Your task to perform on an android device: turn off javascript in the chrome app Image 0: 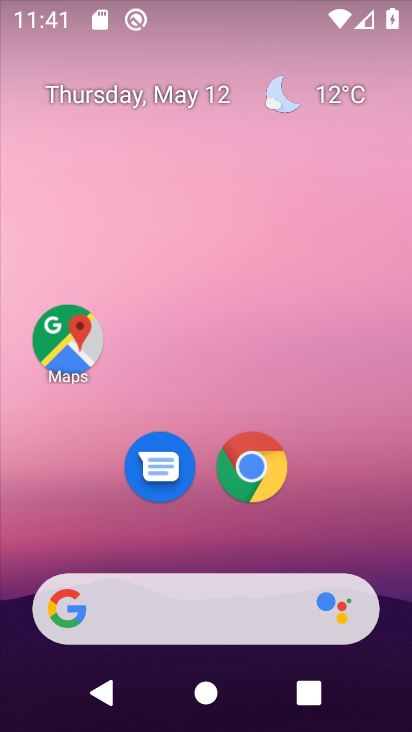
Step 0: click (265, 469)
Your task to perform on an android device: turn off javascript in the chrome app Image 1: 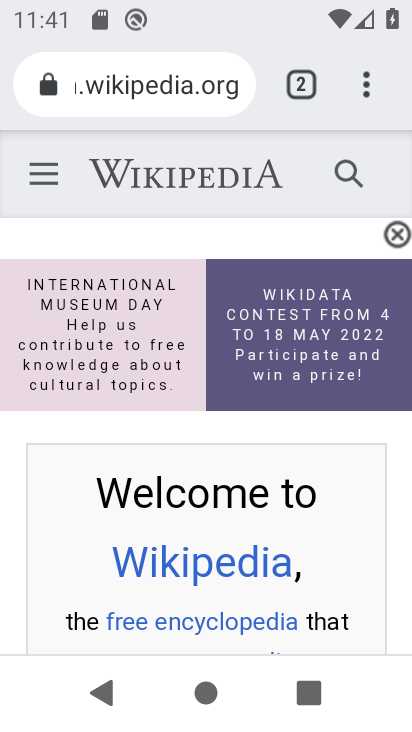
Step 1: click (374, 72)
Your task to perform on an android device: turn off javascript in the chrome app Image 2: 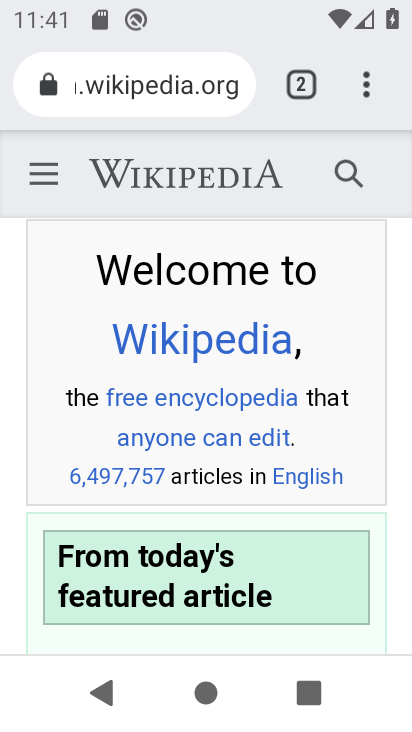
Step 2: click (357, 89)
Your task to perform on an android device: turn off javascript in the chrome app Image 3: 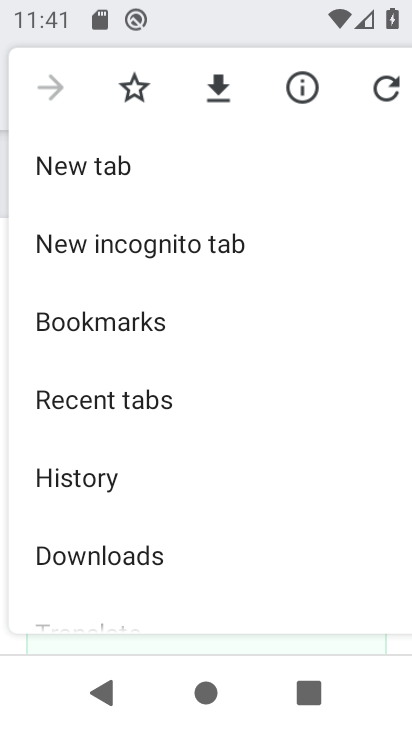
Step 3: drag from (155, 529) to (175, 38)
Your task to perform on an android device: turn off javascript in the chrome app Image 4: 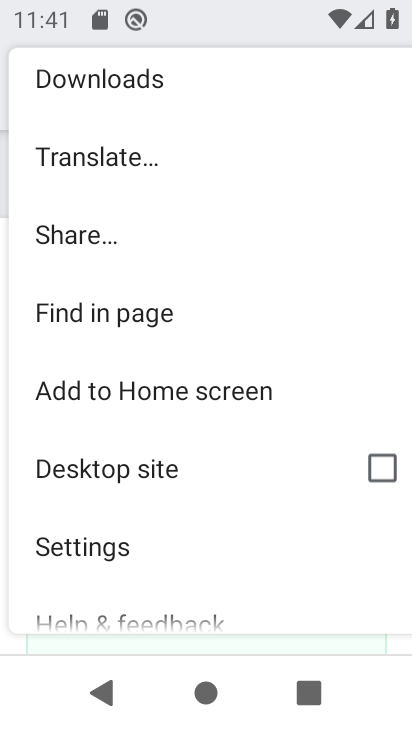
Step 4: click (124, 542)
Your task to perform on an android device: turn off javascript in the chrome app Image 5: 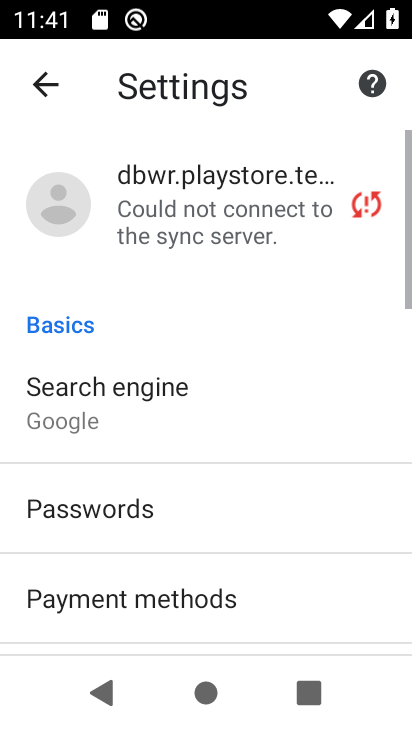
Step 5: drag from (204, 519) to (216, 35)
Your task to perform on an android device: turn off javascript in the chrome app Image 6: 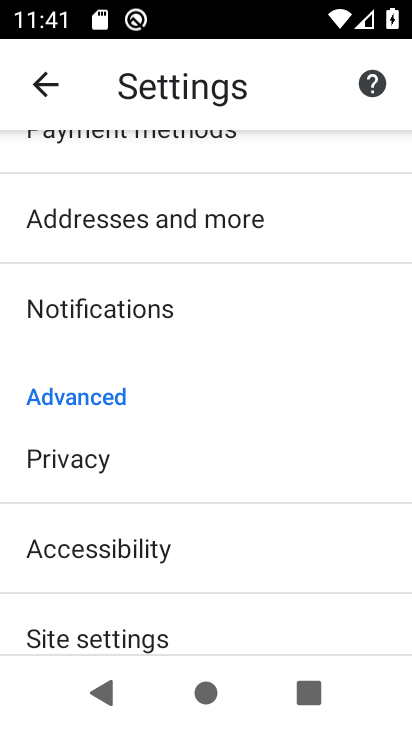
Step 6: drag from (188, 470) to (215, 91)
Your task to perform on an android device: turn off javascript in the chrome app Image 7: 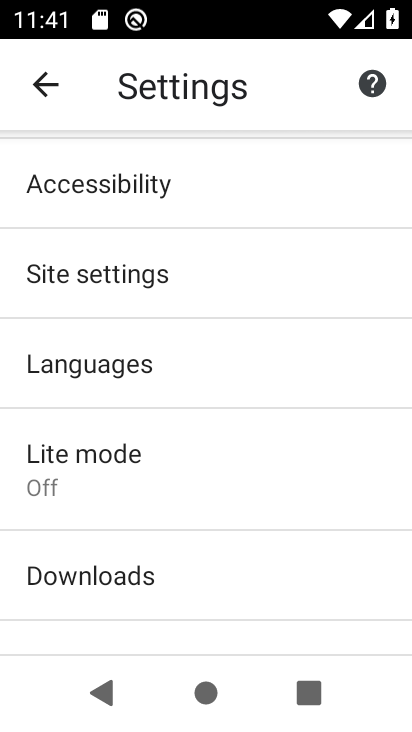
Step 7: click (158, 265)
Your task to perform on an android device: turn off javascript in the chrome app Image 8: 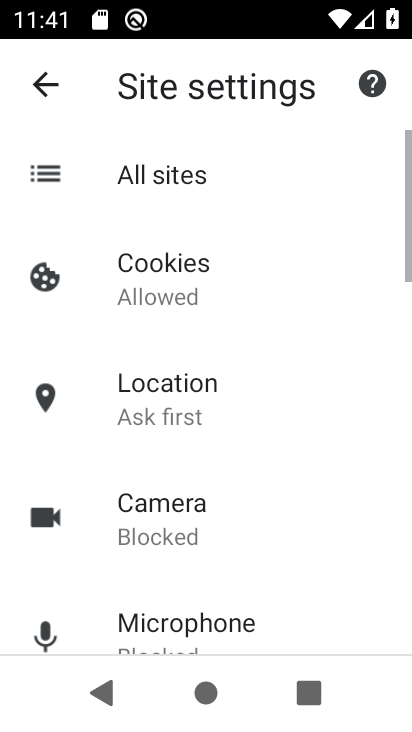
Step 8: drag from (268, 579) to (220, 145)
Your task to perform on an android device: turn off javascript in the chrome app Image 9: 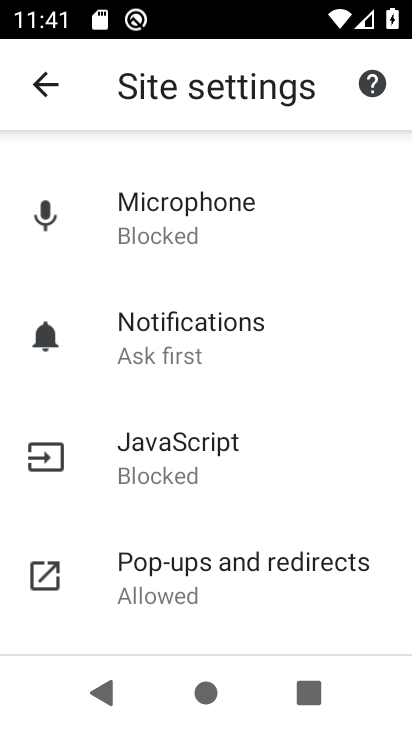
Step 9: click (241, 475)
Your task to perform on an android device: turn off javascript in the chrome app Image 10: 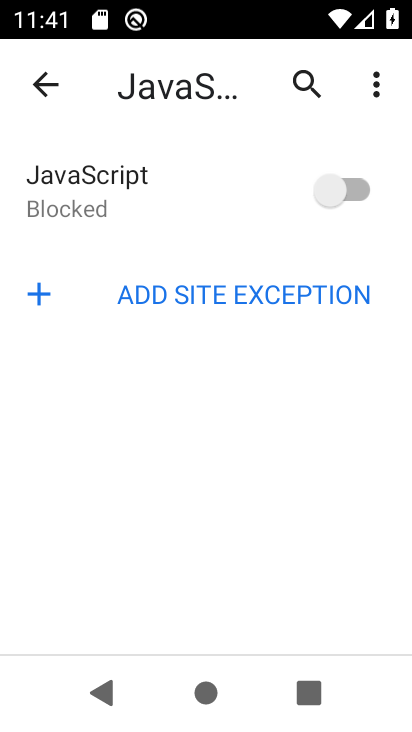
Step 10: task complete